Your task to perform on an android device: change the clock display to analog Image 0: 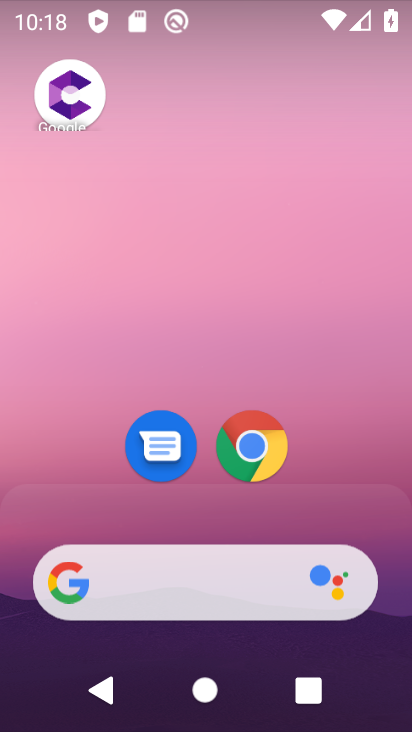
Step 0: press home button
Your task to perform on an android device: change the clock display to analog Image 1: 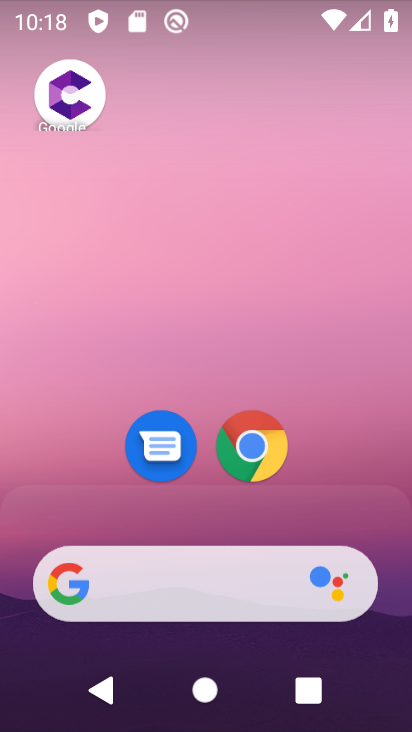
Step 1: drag from (349, 503) to (338, 0)
Your task to perform on an android device: change the clock display to analog Image 2: 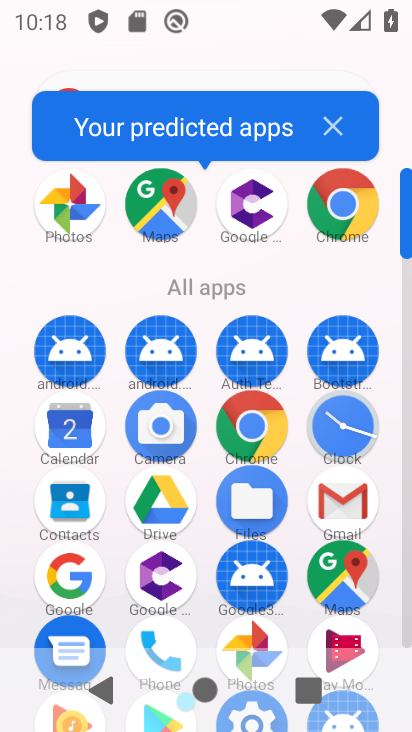
Step 2: click (349, 430)
Your task to perform on an android device: change the clock display to analog Image 3: 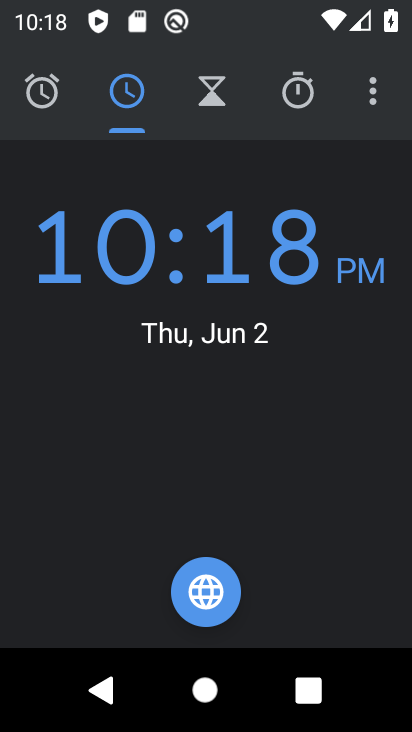
Step 3: click (374, 90)
Your task to perform on an android device: change the clock display to analog Image 4: 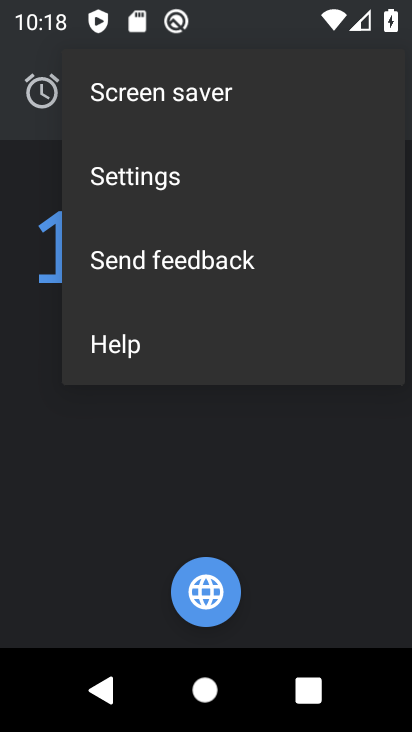
Step 4: click (175, 180)
Your task to perform on an android device: change the clock display to analog Image 5: 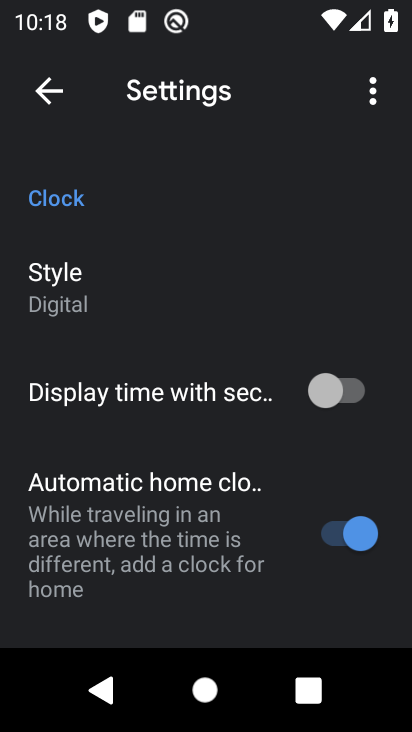
Step 5: click (93, 290)
Your task to perform on an android device: change the clock display to analog Image 6: 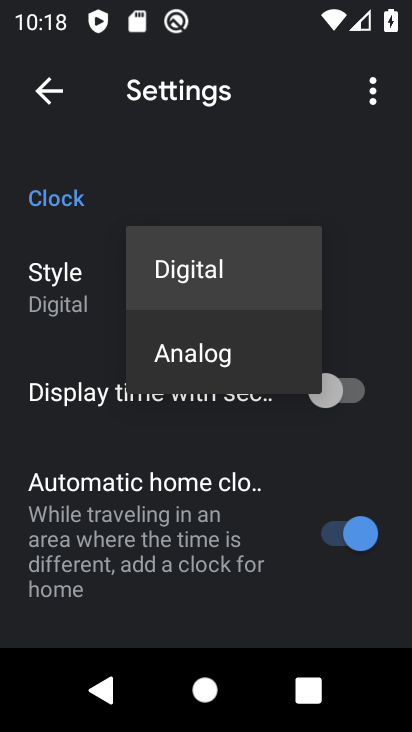
Step 6: click (215, 343)
Your task to perform on an android device: change the clock display to analog Image 7: 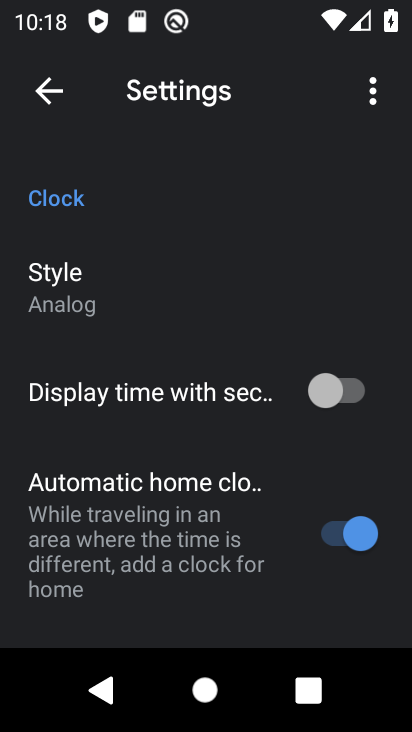
Step 7: task complete